Your task to perform on an android device: open app "Chime – Mobile Banking" (install if not already installed), go to login, and select forgot password Image 0: 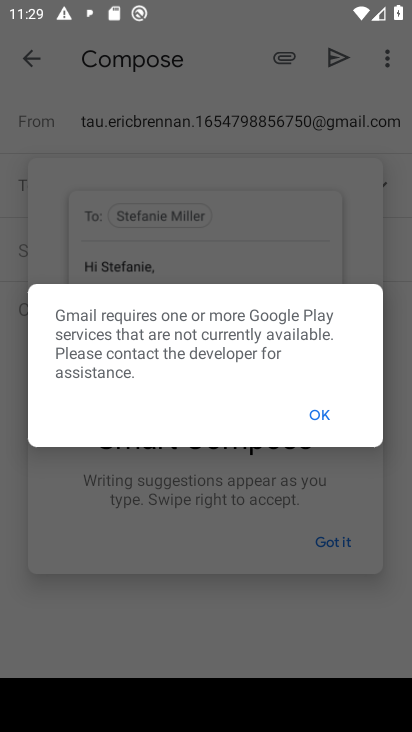
Step 0: press back button
Your task to perform on an android device: open app "Chime – Mobile Banking" (install if not already installed), go to login, and select forgot password Image 1: 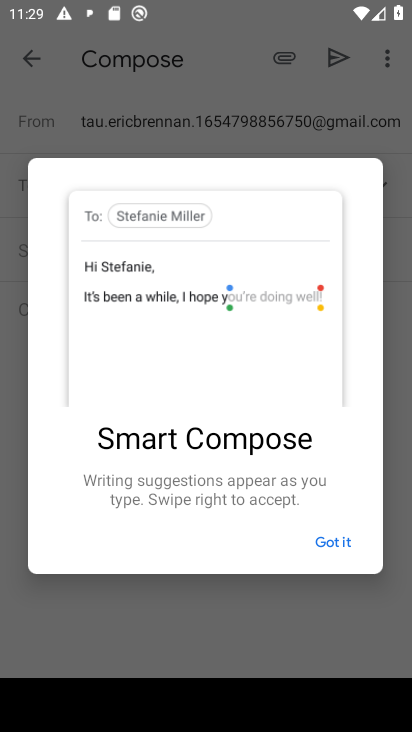
Step 1: press home button
Your task to perform on an android device: open app "Chime – Mobile Banking" (install if not already installed), go to login, and select forgot password Image 2: 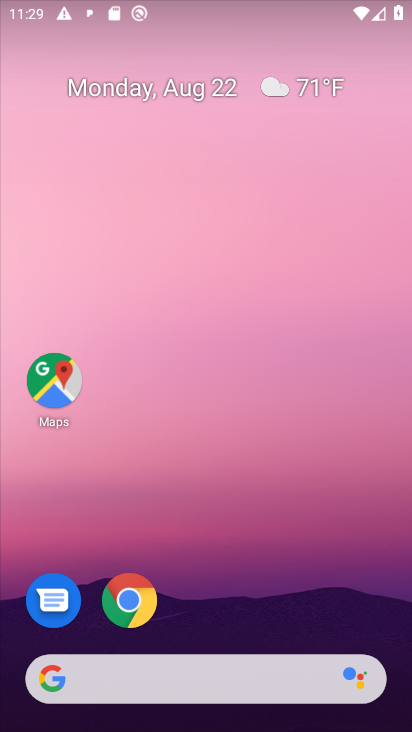
Step 2: drag from (224, 573) to (208, 151)
Your task to perform on an android device: open app "Chime – Mobile Banking" (install if not already installed), go to login, and select forgot password Image 3: 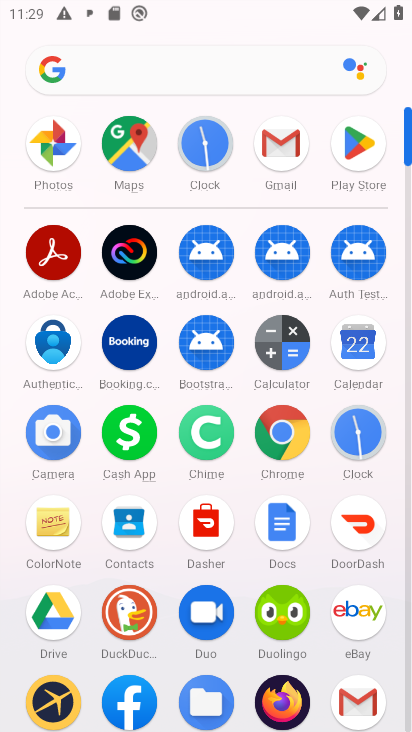
Step 3: click (330, 144)
Your task to perform on an android device: open app "Chime – Mobile Banking" (install if not already installed), go to login, and select forgot password Image 4: 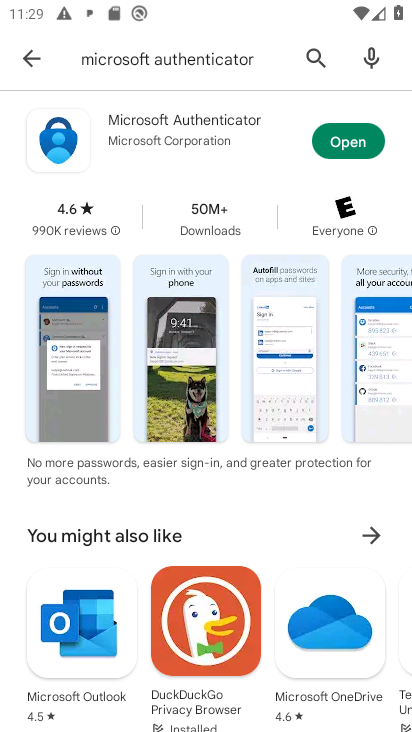
Step 4: click (309, 49)
Your task to perform on an android device: open app "Chime – Mobile Banking" (install if not already installed), go to login, and select forgot password Image 5: 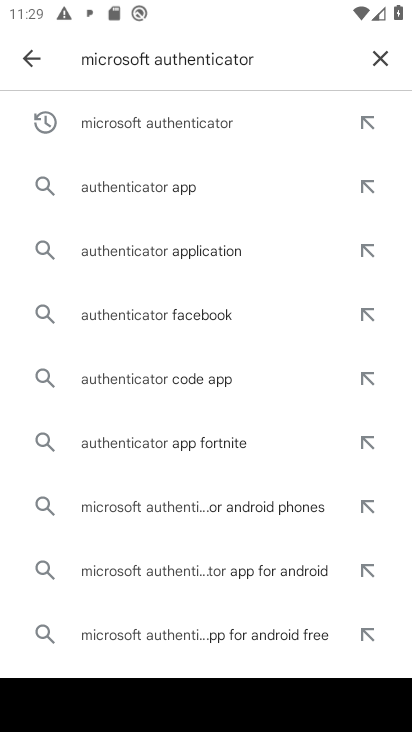
Step 5: click (379, 64)
Your task to perform on an android device: open app "Chime – Mobile Banking" (install if not already installed), go to login, and select forgot password Image 6: 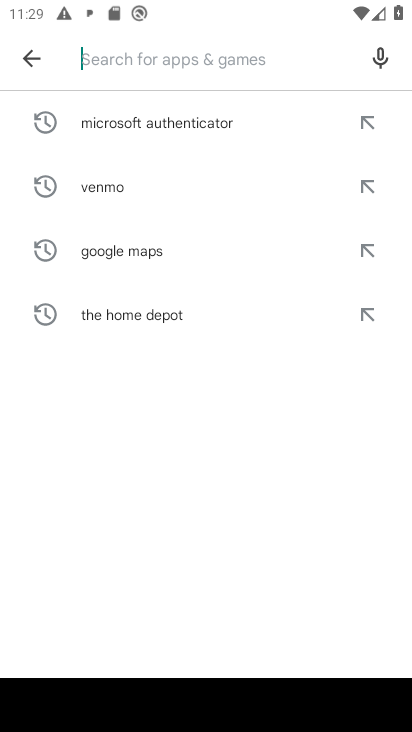
Step 6: type "Chime"
Your task to perform on an android device: open app "Chime – Mobile Banking" (install if not already installed), go to login, and select forgot password Image 7: 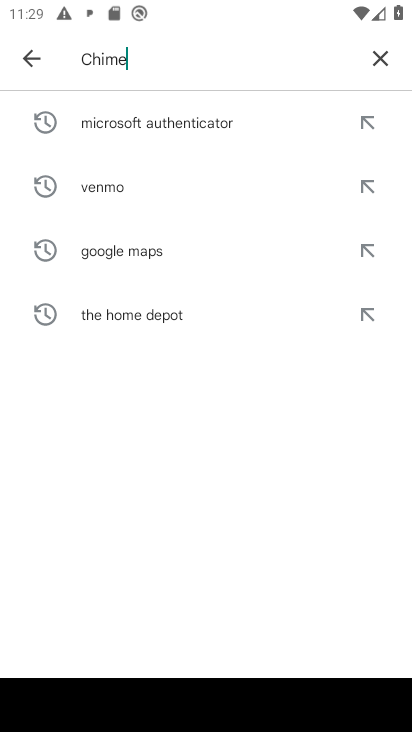
Step 7: type ""
Your task to perform on an android device: open app "Chime – Mobile Banking" (install if not already installed), go to login, and select forgot password Image 8: 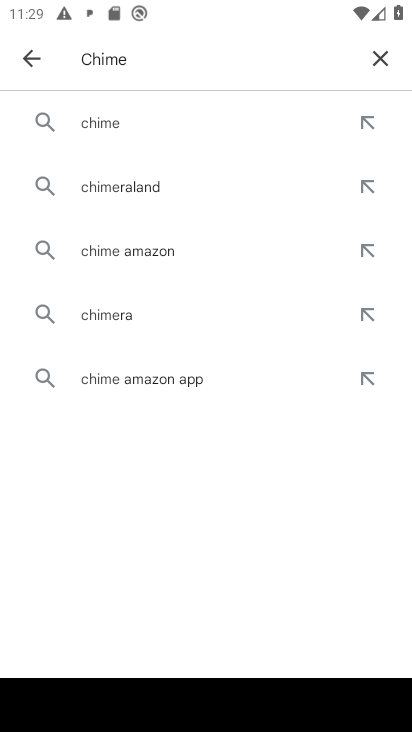
Step 8: click (113, 125)
Your task to perform on an android device: open app "Chime – Mobile Banking" (install if not already installed), go to login, and select forgot password Image 9: 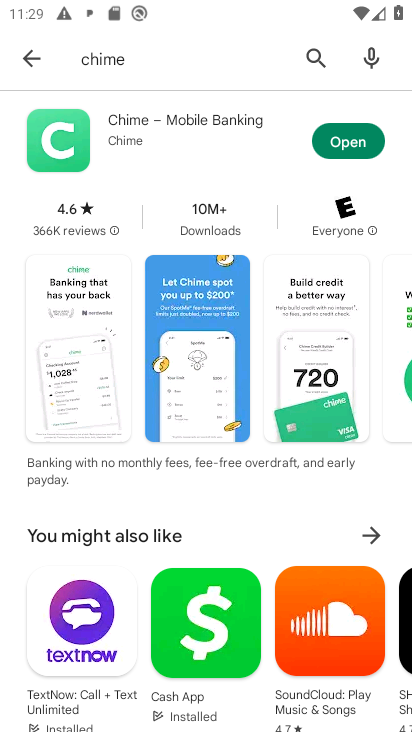
Step 9: click (325, 151)
Your task to perform on an android device: open app "Chime – Mobile Banking" (install if not already installed), go to login, and select forgot password Image 10: 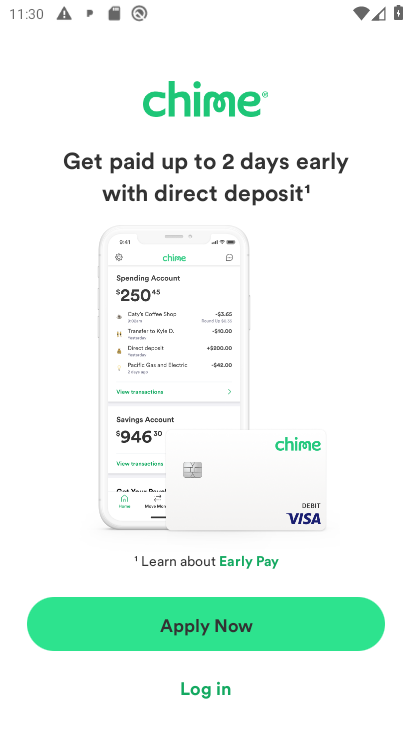
Step 10: task complete